Your task to perform on an android device: Open network settings Image 0: 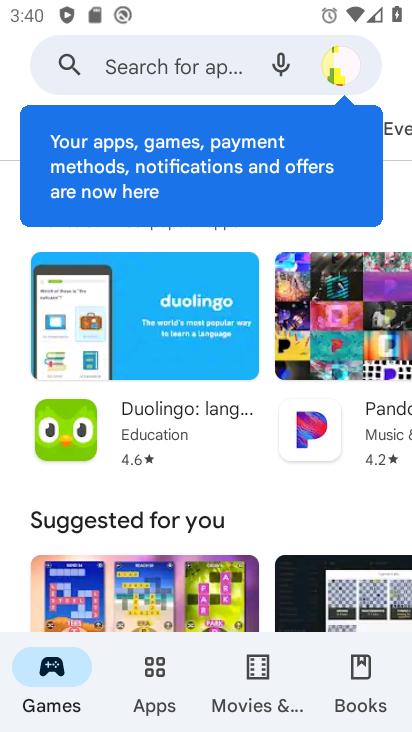
Step 0: press home button
Your task to perform on an android device: Open network settings Image 1: 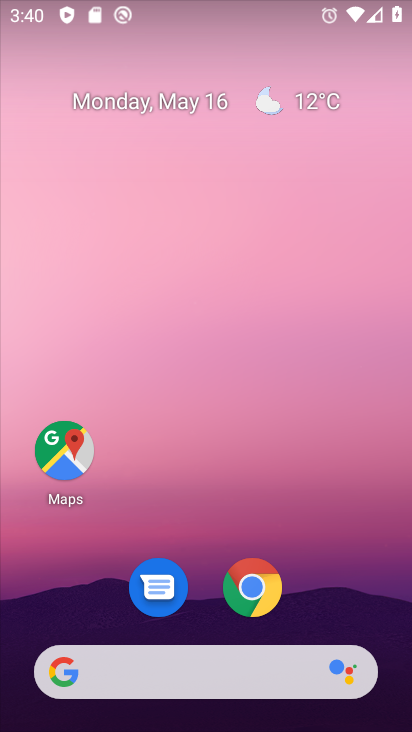
Step 1: drag from (396, 656) to (376, 409)
Your task to perform on an android device: Open network settings Image 2: 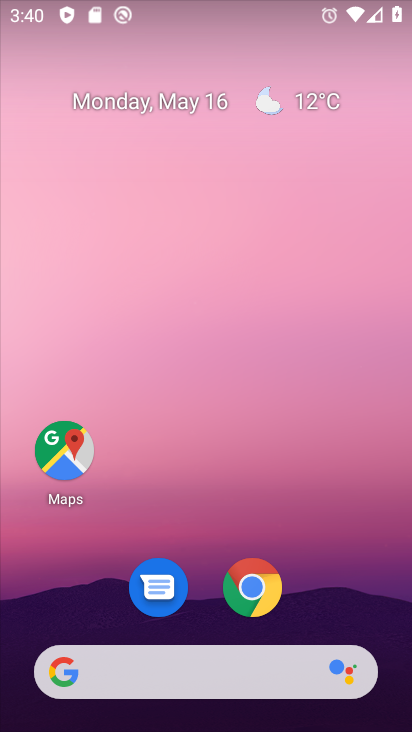
Step 2: drag from (388, 525) to (387, 373)
Your task to perform on an android device: Open network settings Image 3: 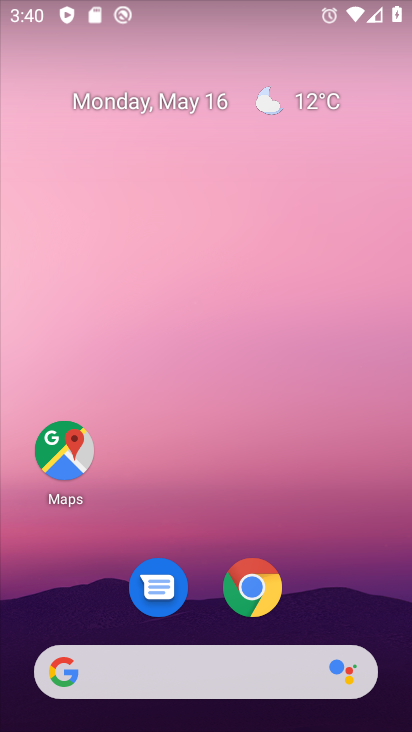
Step 3: drag from (390, 537) to (373, 194)
Your task to perform on an android device: Open network settings Image 4: 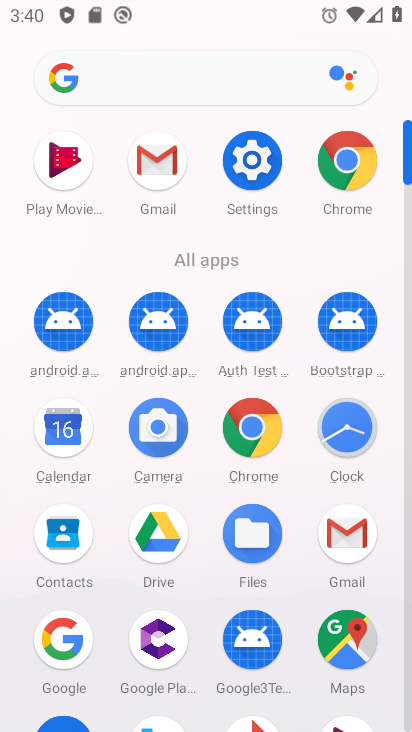
Step 4: click (238, 156)
Your task to perform on an android device: Open network settings Image 5: 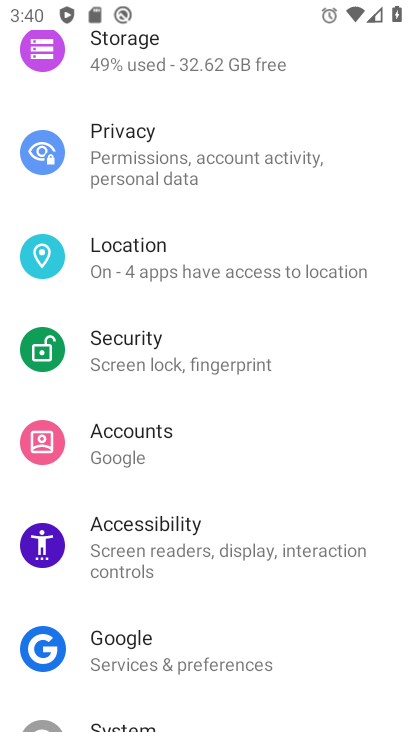
Step 5: drag from (323, 112) to (283, 501)
Your task to perform on an android device: Open network settings Image 6: 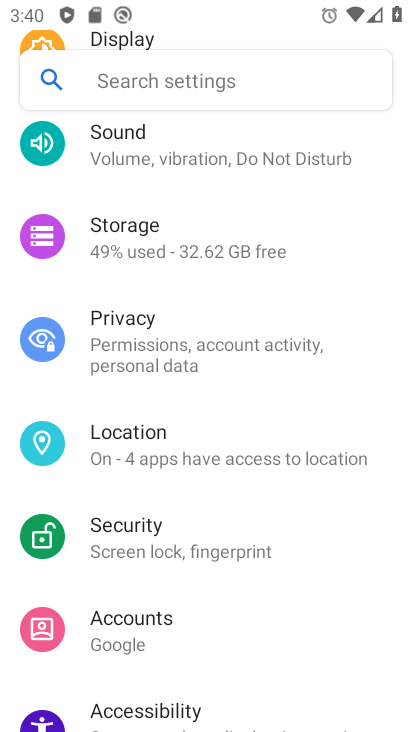
Step 6: drag from (316, 624) to (322, 323)
Your task to perform on an android device: Open network settings Image 7: 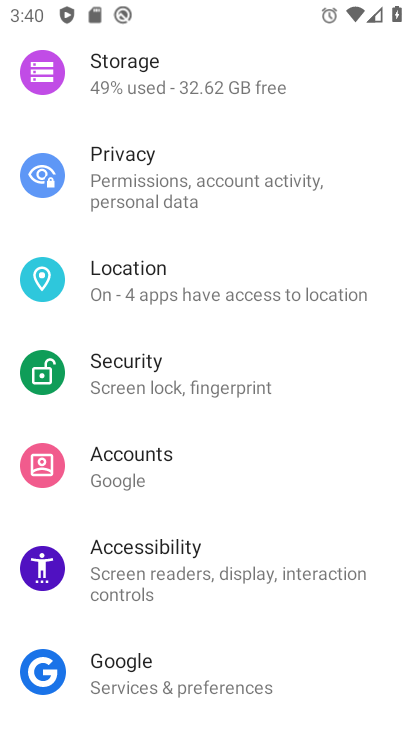
Step 7: drag from (376, 657) to (379, 461)
Your task to perform on an android device: Open network settings Image 8: 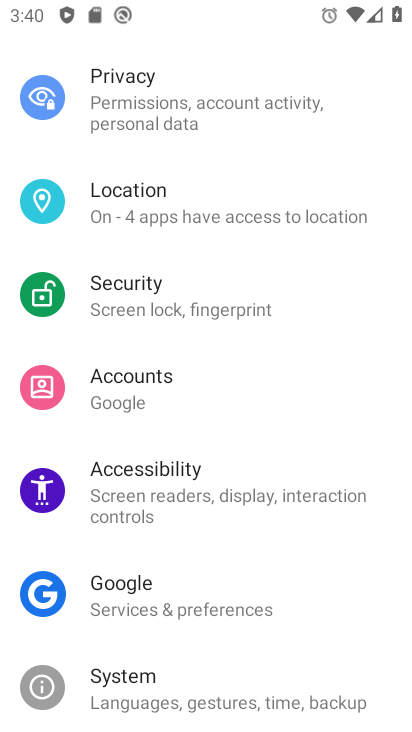
Step 8: drag from (371, 642) to (387, 327)
Your task to perform on an android device: Open network settings Image 9: 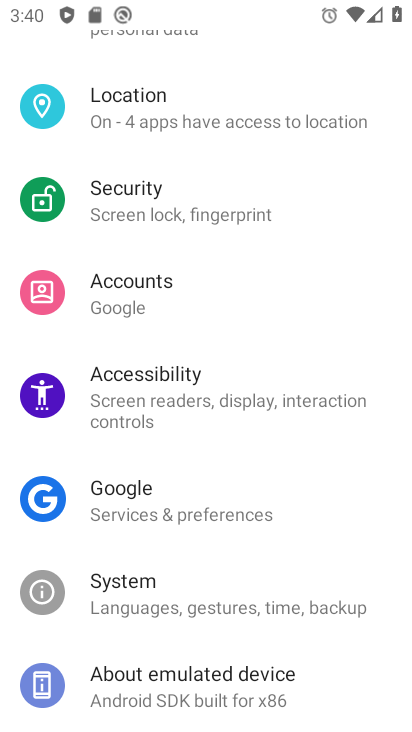
Step 9: drag from (319, 110) to (289, 616)
Your task to perform on an android device: Open network settings Image 10: 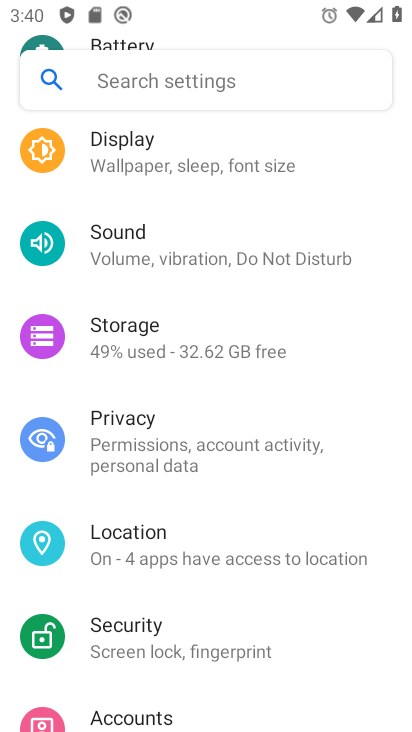
Step 10: drag from (344, 170) to (312, 641)
Your task to perform on an android device: Open network settings Image 11: 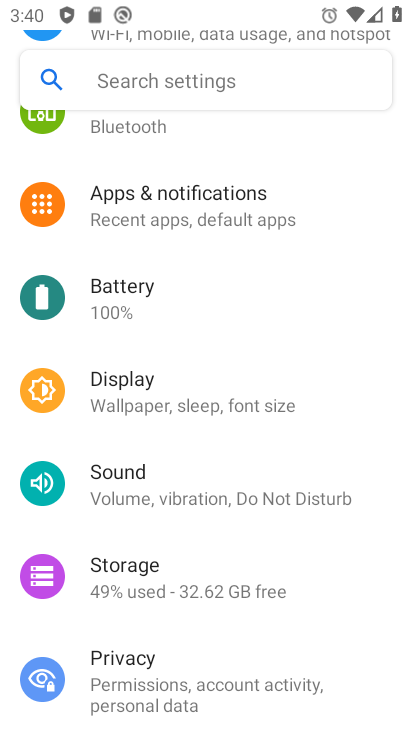
Step 11: drag from (324, 170) to (316, 637)
Your task to perform on an android device: Open network settings Image 12: 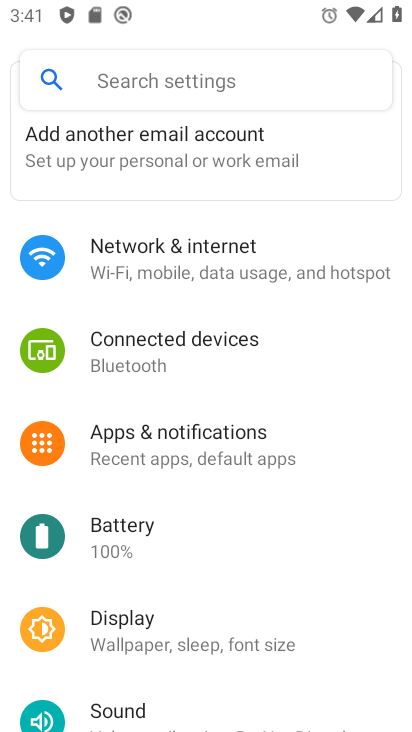
Step 12: drag from (347, 164) to (343, 652)
Your task to perform on an android device: Open network settings Image 13: 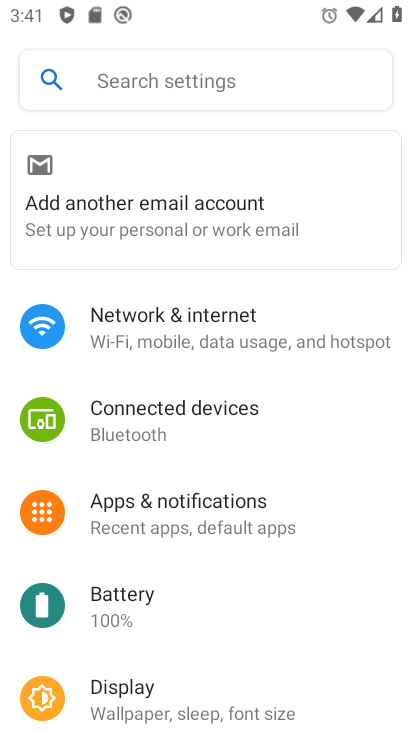
Step 13: click (158, 333)
Your task to perform on an android device: Open network settings Image 14: 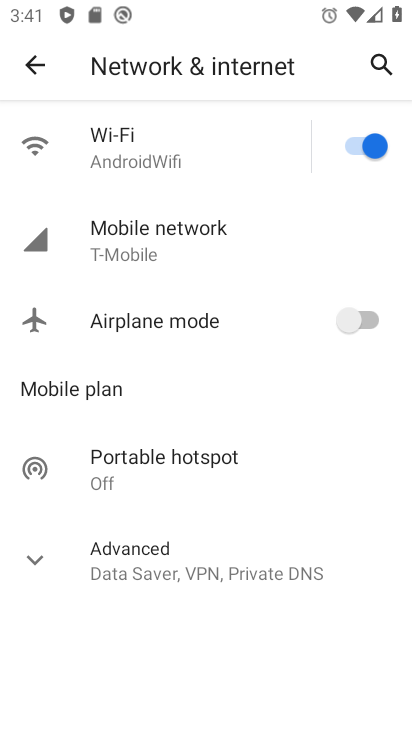
Step 14: task complete